Your task to perform on an android device: turn pop-ups on in chrome Image 0: 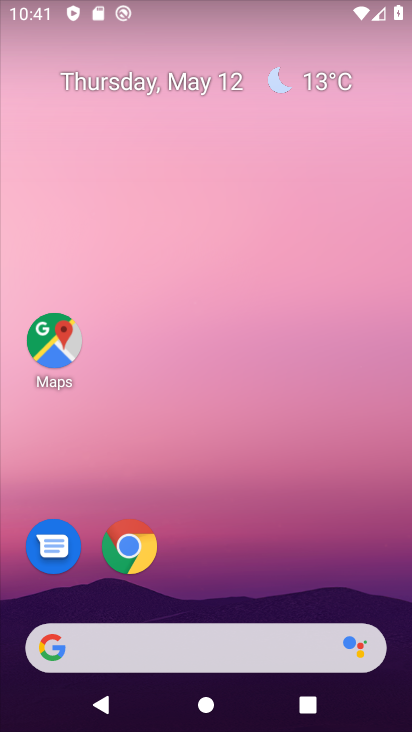
Step 0: drag from (284, 664) to (239, 117)
Your task to perform on an android device: turn pop-ups on in chrome Image 1: 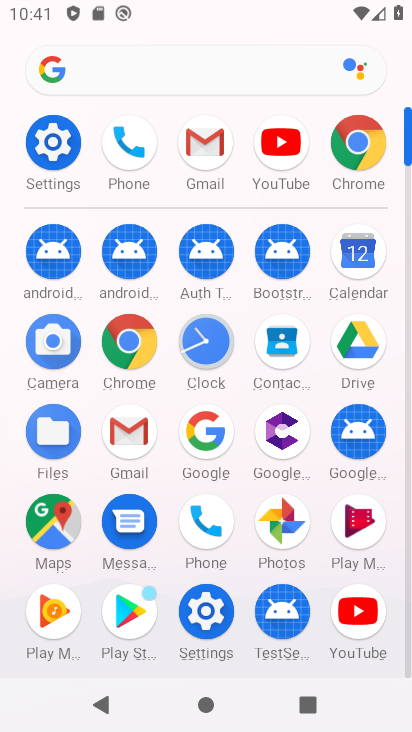
Step 1: click (133, 350)
Your task to perform on an android device: turn pop-ups on in chrome Image 2: 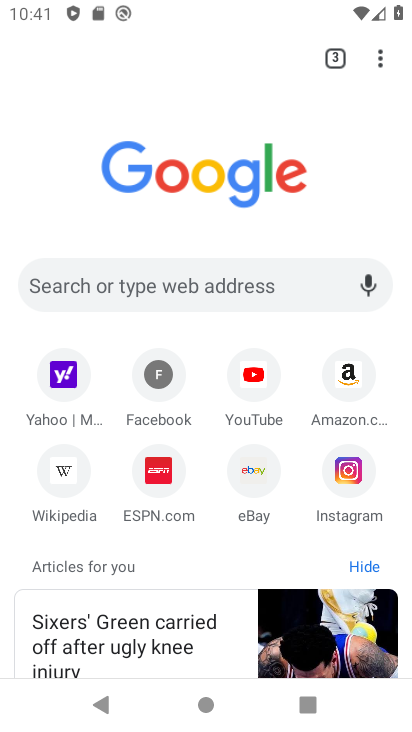
Step 2: click (373, 72)
Your task to perform on an android device: turn pop-ups on in chrome Image 3: 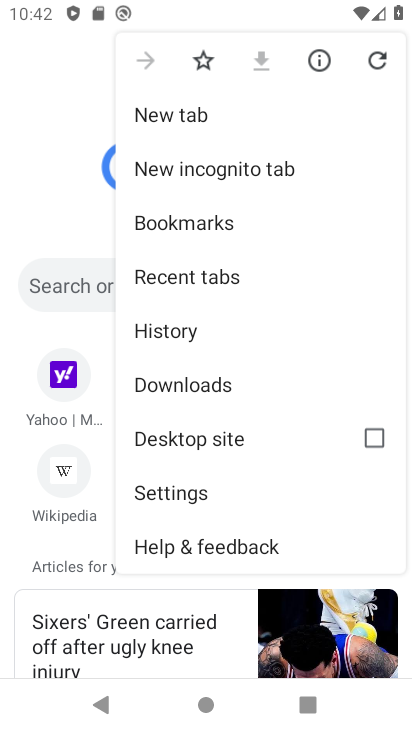
Step 3: click (198, 491)
Your task to perform on an android device: turn pop-ups on in chrome Image 4: 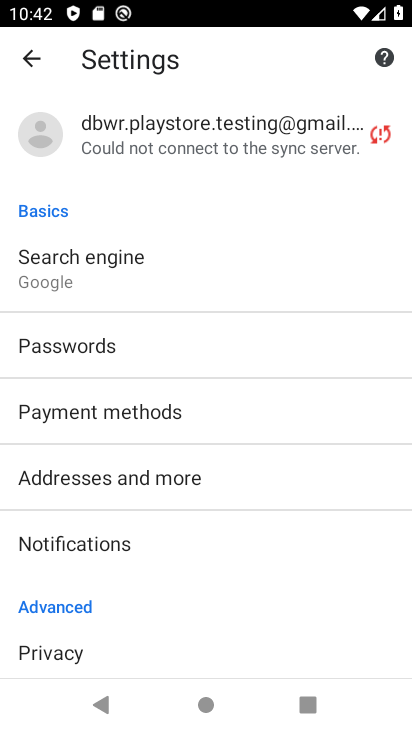
Step 4: drag from (126, 621) to (203, 395)
Your task to perform on an android device: turn pop-ups on in chrome Image 5: 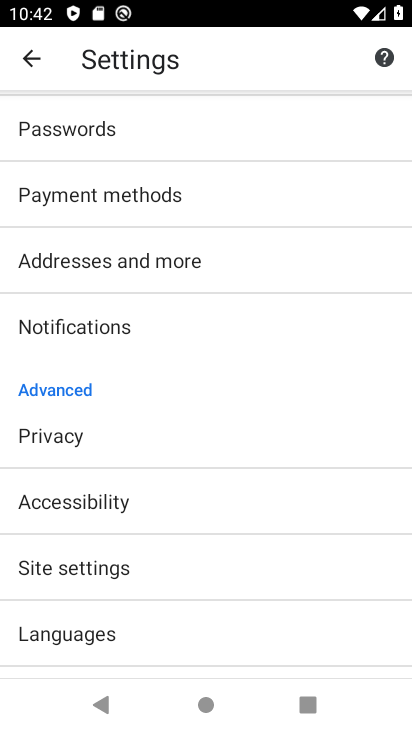
Step 5: click (105, 564)
Your task to perform on an android device: turn pop-ups on in chrome Image 6: 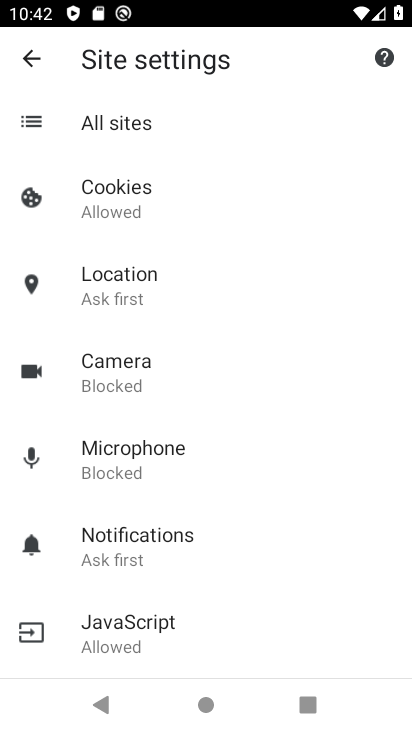
Step 6: drag from (141, 548) to (232, 361)
Your task to perform on an android device: turn pop-ups on in chrome Image 7: 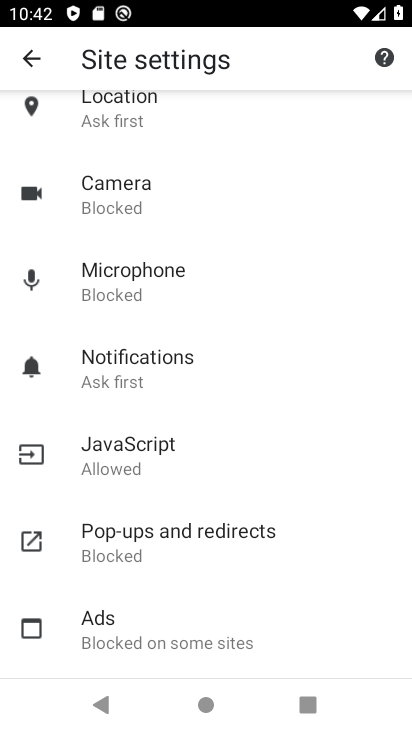
Step 7: click (148, 535)
Your task to perform on an android device: turn pop-ups on in chrome Image 8: 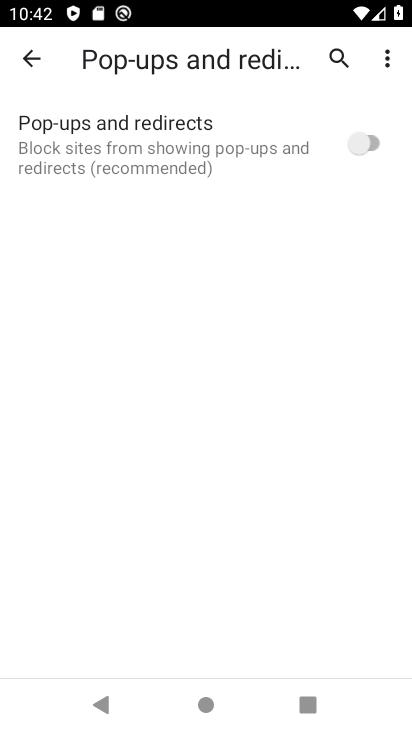
Step 8: click (347, 151)
Your task to perform on an android device: turn pop-ups on in chrome Image 9: 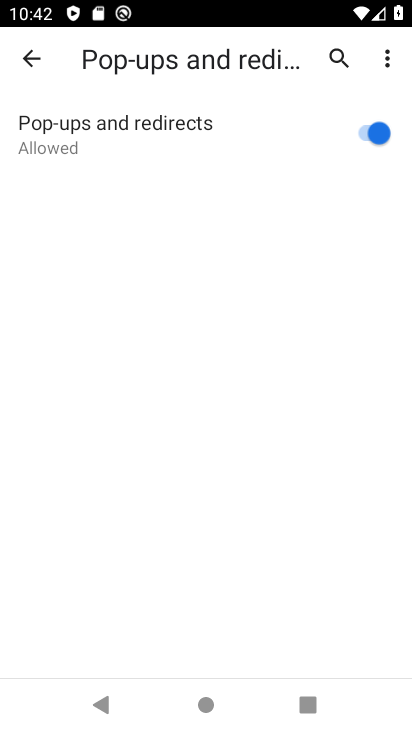
Step 9: task complete